Your task to perform on an android device: make emails show in primary in the gmail app Image 0: 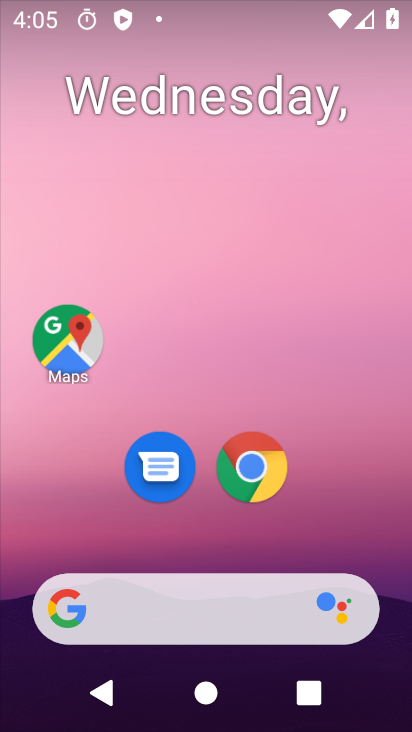
Step 0: drag from (318, 206) to (235, 10)
Your task to perform on an android device: make emails show in primary in the gmail app Image 1: 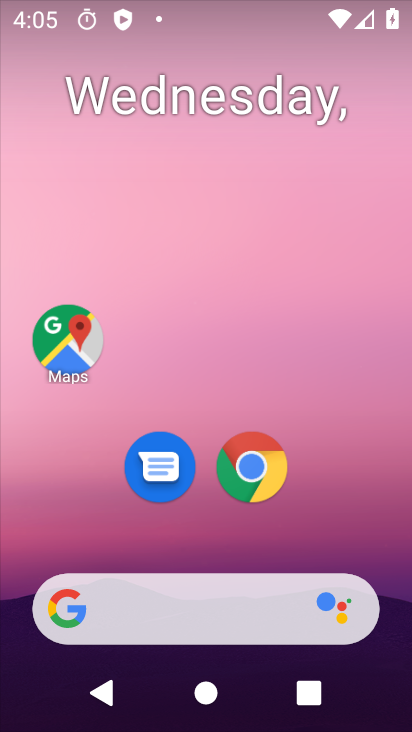
Step 1: drag from (238, 313) to (173, 5)
Your task to perform on an android device: make emails show in primary in the gmail app Image 2: 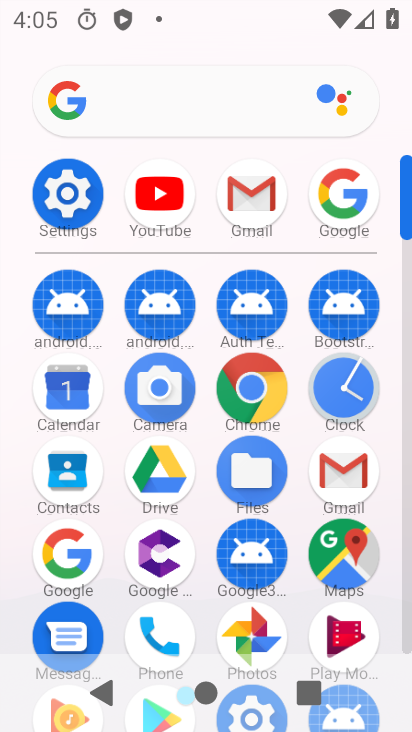
Step 2: click (258, 200)
Your task to perform on an android device: make emails show in primary in the gmail app Image 3: 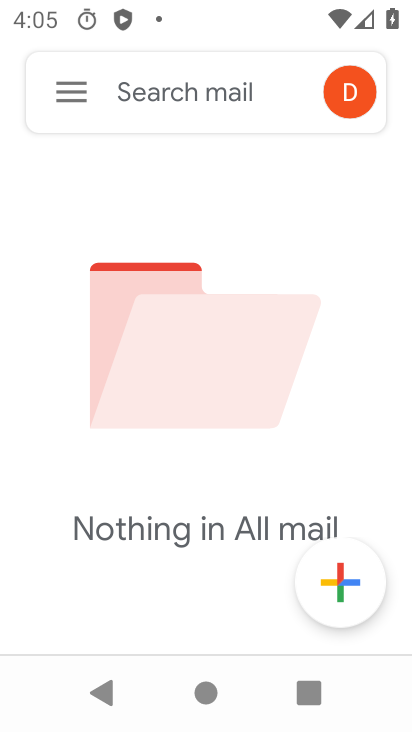
Step 3: click (77, 87)
Your task to perform on an android device: make emails show in primary in the gmail app Image 4: 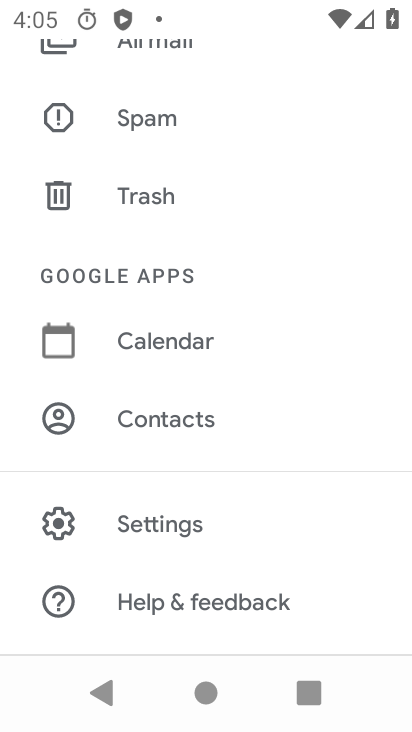
Step 4: task complete